Your task to perform on an android device: set default search engine in the chrome app Image 0: 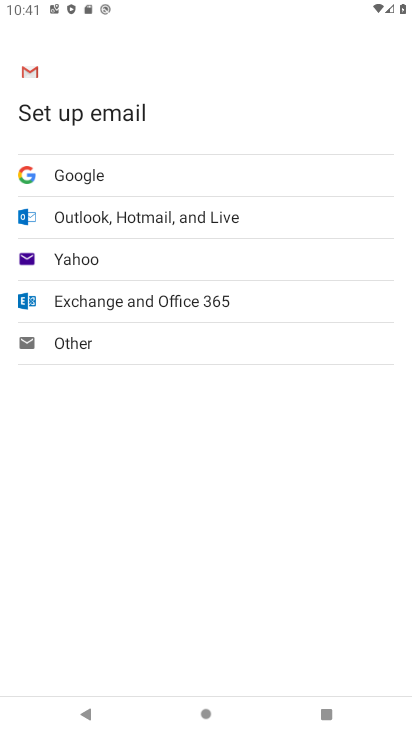
Step 0: press home button
Your task to perform on an android device: set default search engine in the chrome app Image 1: 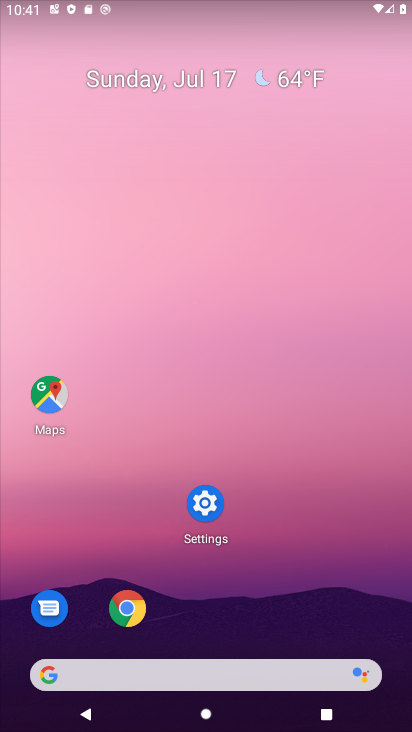
Step 1: click (135, 601)
Your task to perform on an android device: set default search engine in the chrome app Image 2: 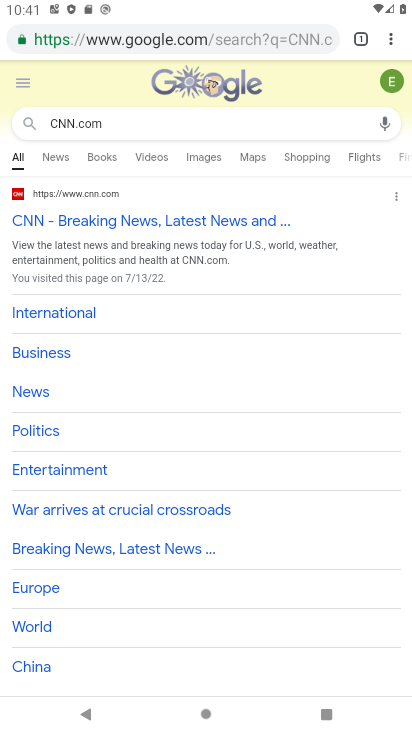
Step 2: click (385, 38)
Your task to perform on an android device: set default search engine in the chrome app Image 3: 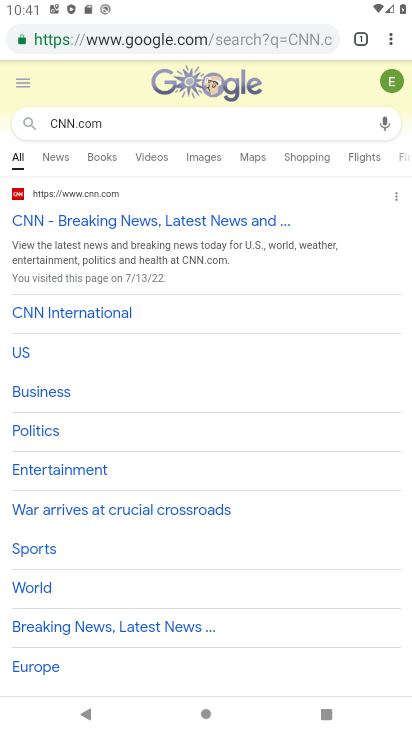
Step 3: click (390, 34)
Your task to perform on an android device: set default search engine in the chrome app Image 4: 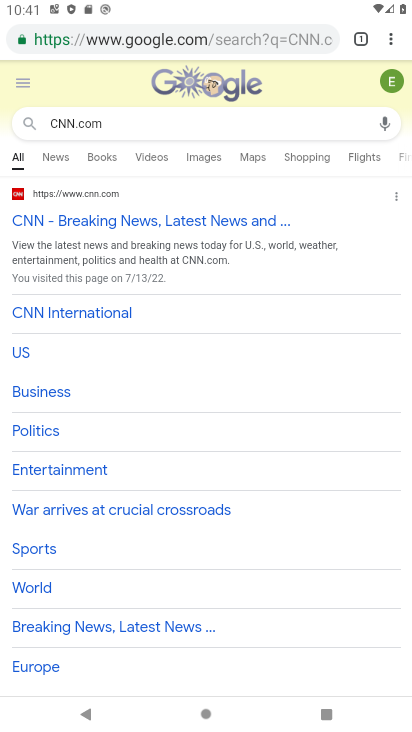
Step 4: click (390, 34)
Your task to perform on an android device: set default search engine in the chrome app Image 5: 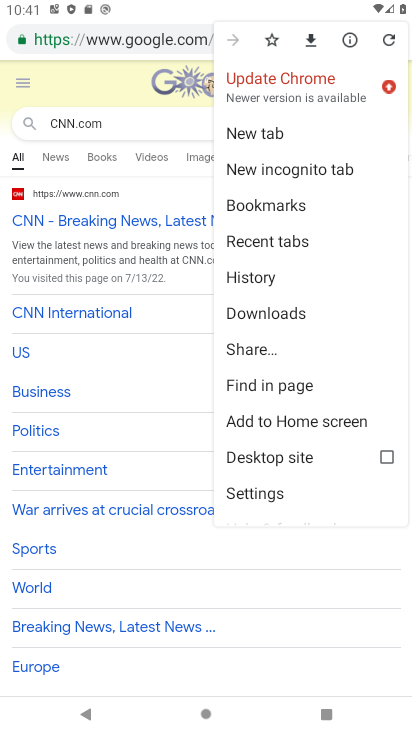
Step 5: click (241, 490)
Your task to perform on an android device: set default search engine in the chrome app Image 6: 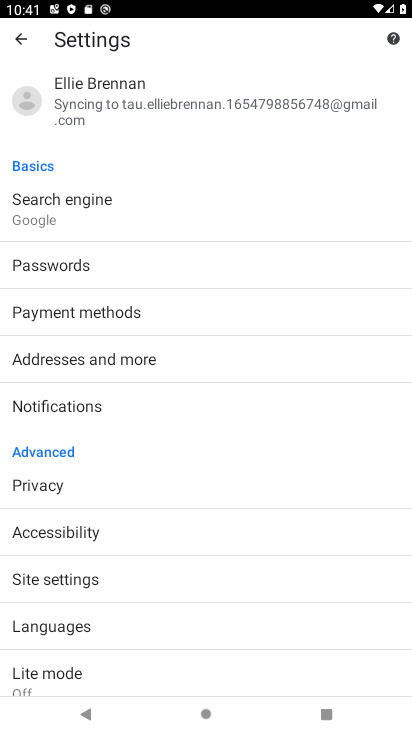
Step 6: click (89, 217)
Your task to perform on an android device: set default search engine in the chrome app Image 7: 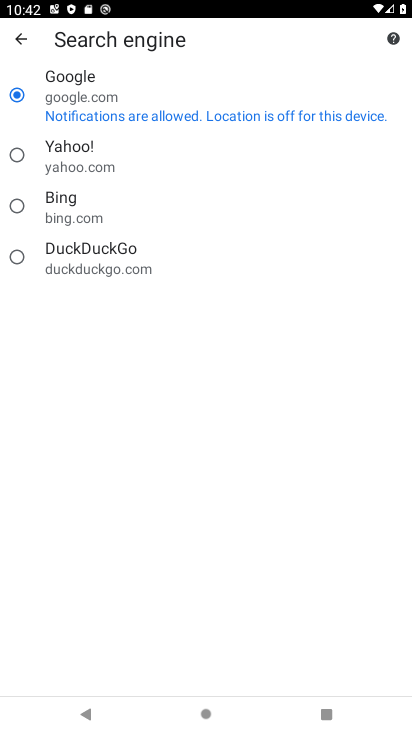
Step 7: task complete